Your task to perform on an android device: refresh tabs in the chrome app Image 0: 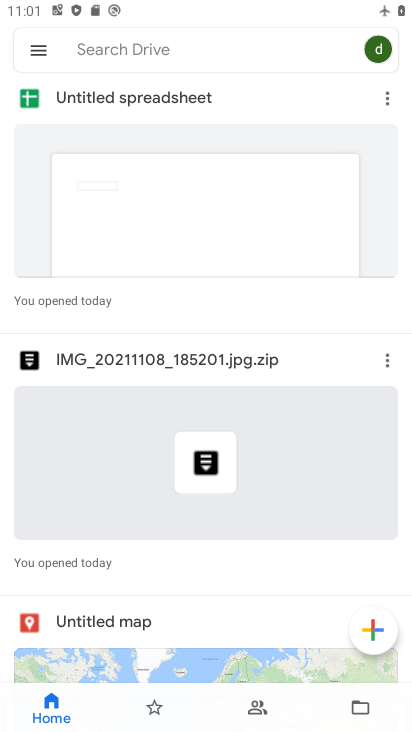
Step 0: press home button
Your task to perform on an android device: refresh tabs in the chrome app Image 1: 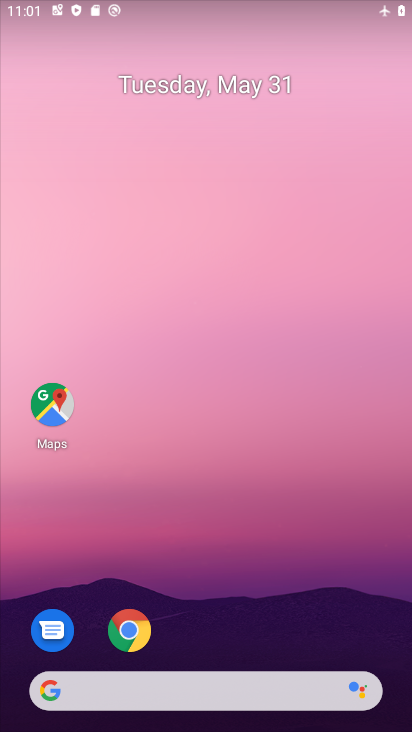
Step 1: drag from (212, 635) to (278, 141)
Your task to perform on an android device: refresh tabs in the chrome app Image 2: 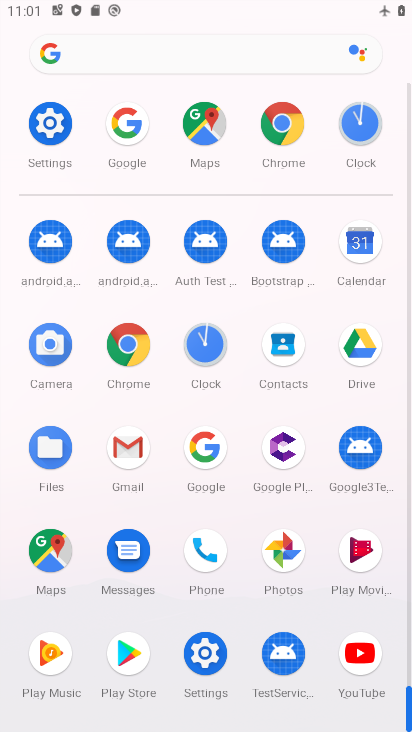
Step 2: click (129, 358)
Your task to perform on an android device: refresh tabs in the chrome app Image 3: 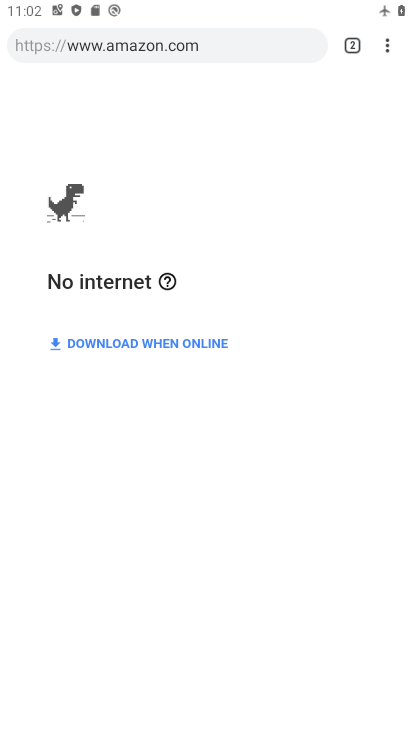
Step 3: click (387, 49)
Your task to perform on an android device: refresh tabs in the chrome app Image 4: 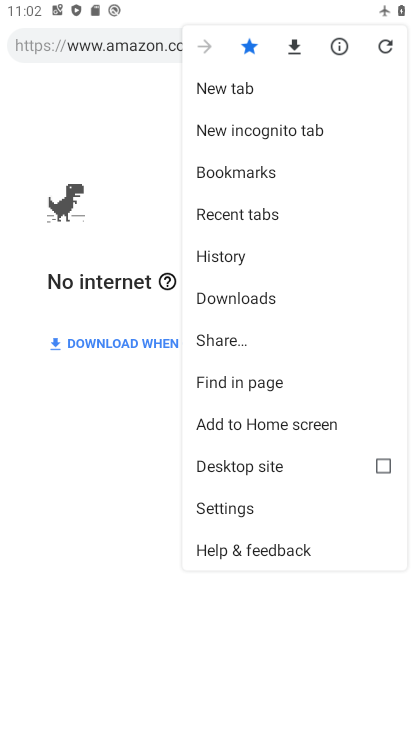
Step 4: click (387, 41)
Your task to perform on an android device: refresh tabs in the chrome app Image 5: 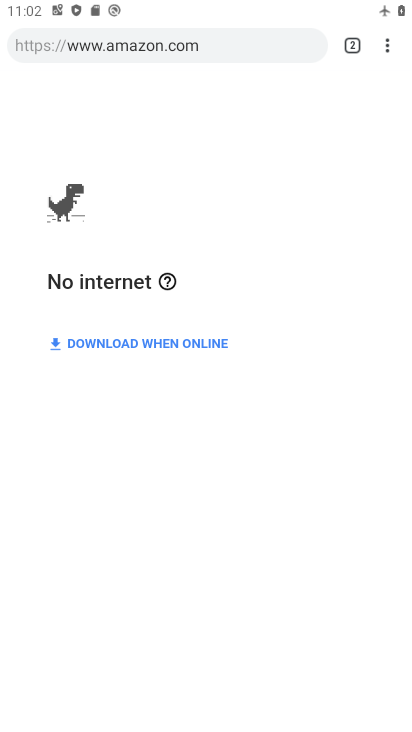
Step 5: task complete